Your task to perform on an android device: turn off notifications settings in the gmail app Image 0: 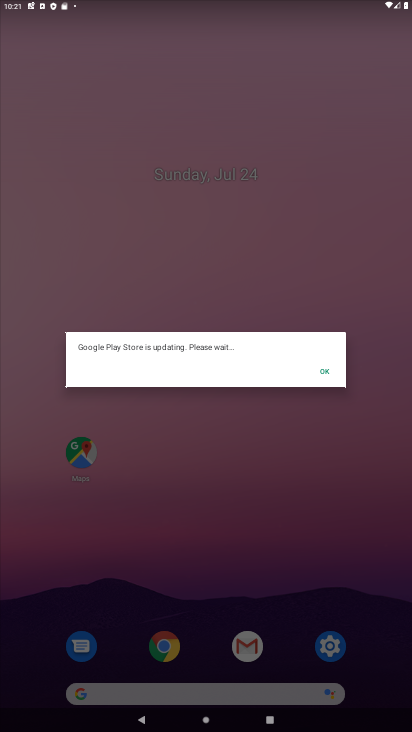
Step 0: press home button
Your task to perform on an android device: turn off notifications settings in the gmail app Image 1: 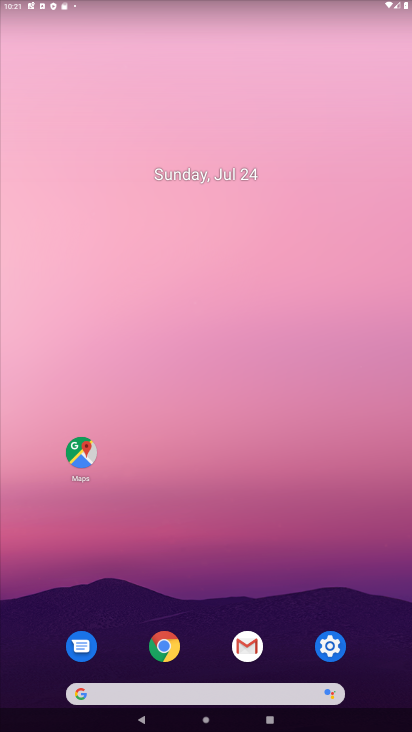
Step 1: click (253, 649)
Your task to perform on an android device: turn off notifications settings in the gmail app Image 2: 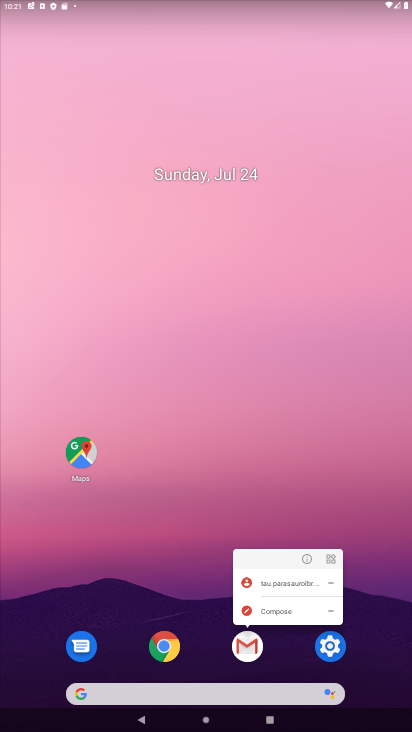
Step 2: click (248, 645)
Your task to perform on an android device: turn off notifications settings in the gmail app Image 3: 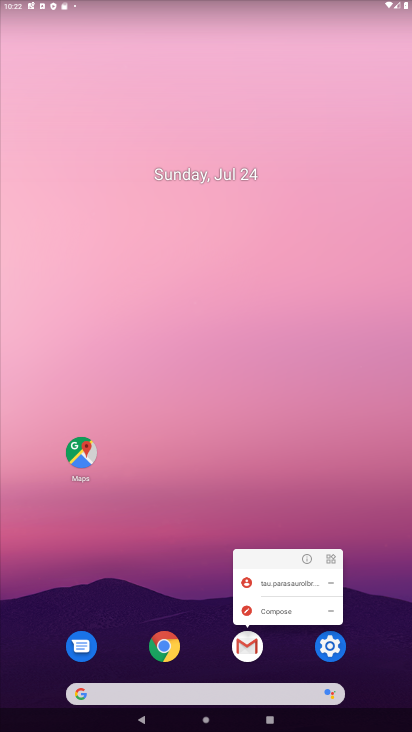
Step 3: click (245, 643)
Your task to perform on an android device: turn off notifications settings in the gmail app Image 4: 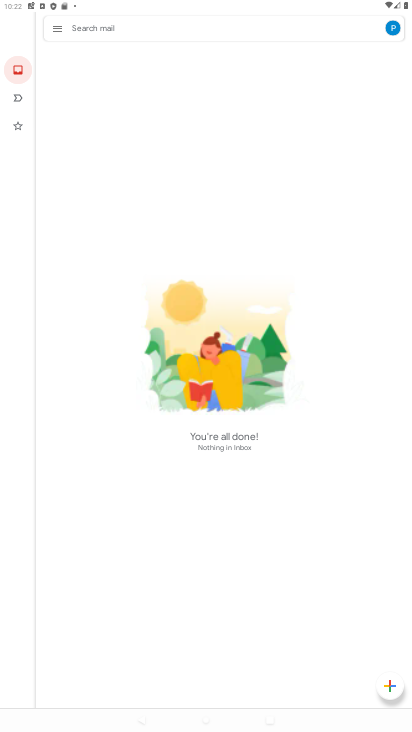
Step 4: click (58, 29)
Your task to perform on an android device: turn off notifications settings in the gmail app Image 5: 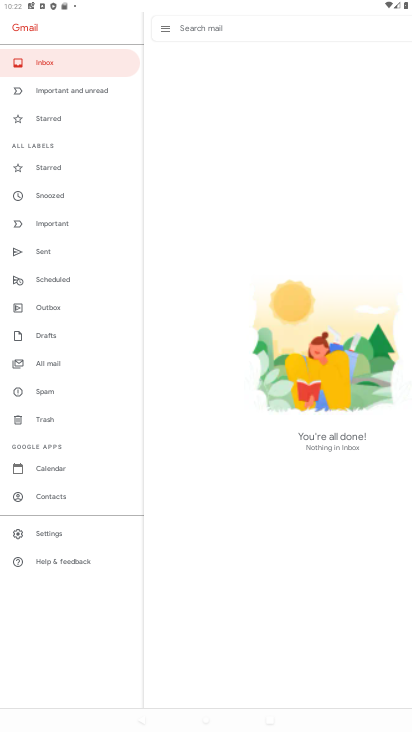
Step 5: click (50, 532)
Your task to perform on an android device: turn off notifications settings in the gmail app Image 6: 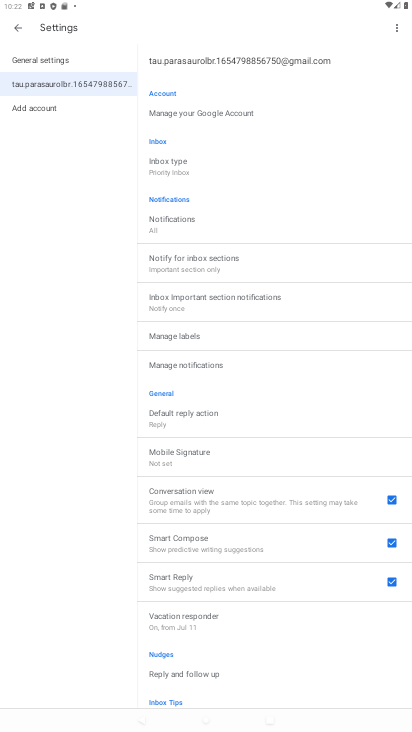
Step 6: click (189, 222)
Your task to perform on an android device: turn off notifications settings in the gmail app Image 7: 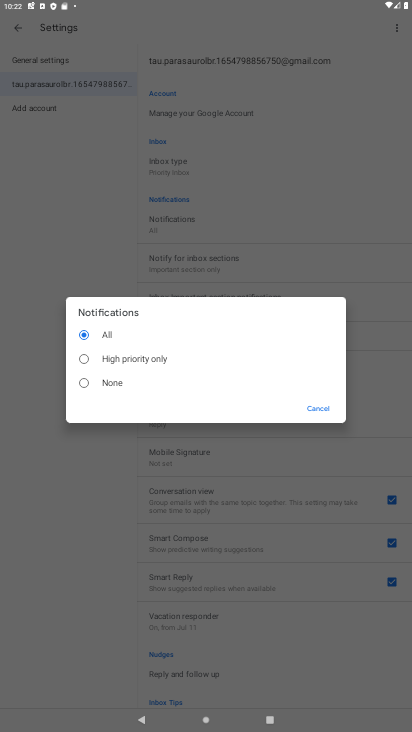
Step 7: click (119, 387)
Your task to perform on an android device: turn off notifications settings in the gmail app Image 8: 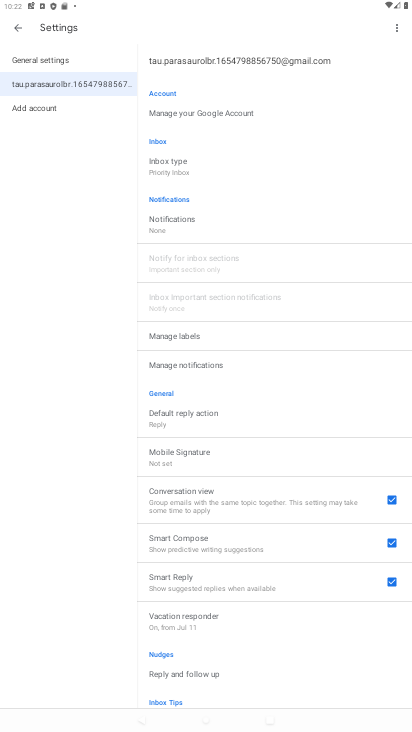
Step 8: task complete